Your task to perform on an android device: toggle sleep mode Image 0: 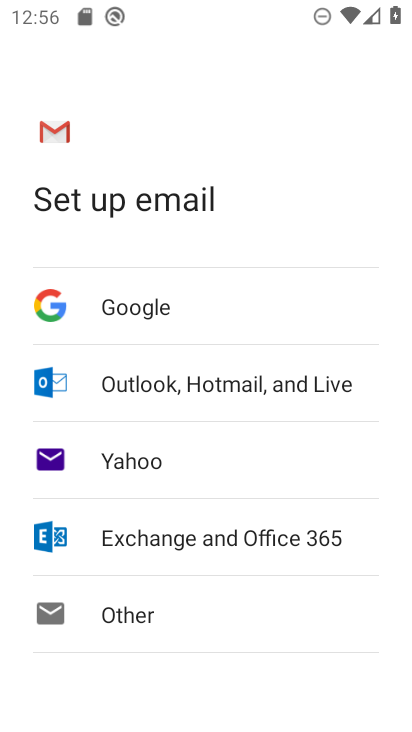
Step 0: press home button
Your task to perform on an android device: toggle sleep mode Image 1: 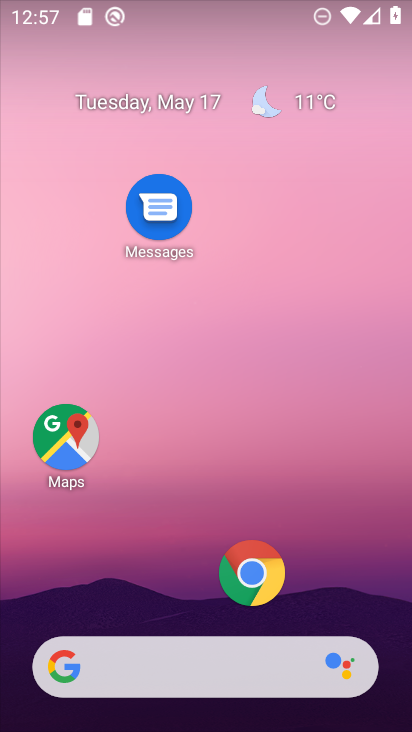
Step 1: drag from (198, 606) to (220, 59)
Your task to perform on an android device: toggle sleep mode Image 2: 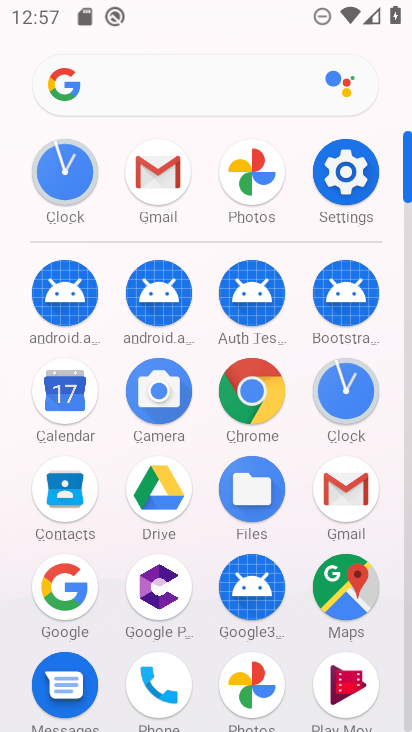
Step 2: click (345, 167)
Your task to perform on an android device: toggle sleep mode Image 3: 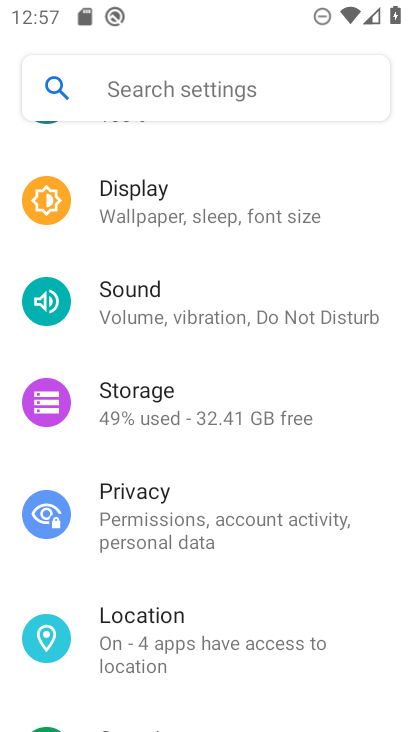
Step 3: click (184, 197)
Your task to perform on an android device: toggle sleep mode Image 4: 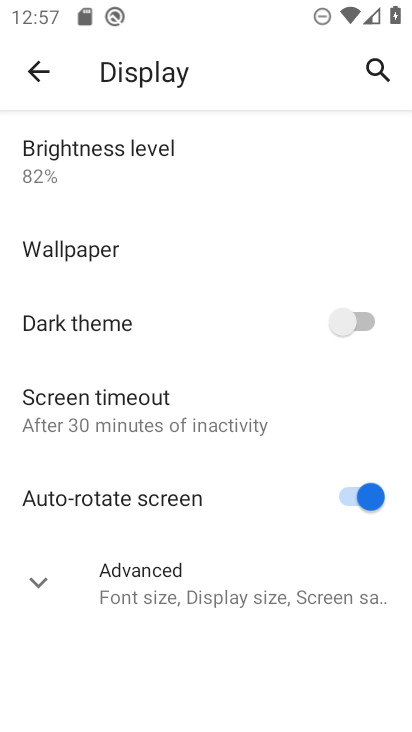
Step 4: click (32, 577)
Your task to perform on an android device: toggle sleep mode Image 5: 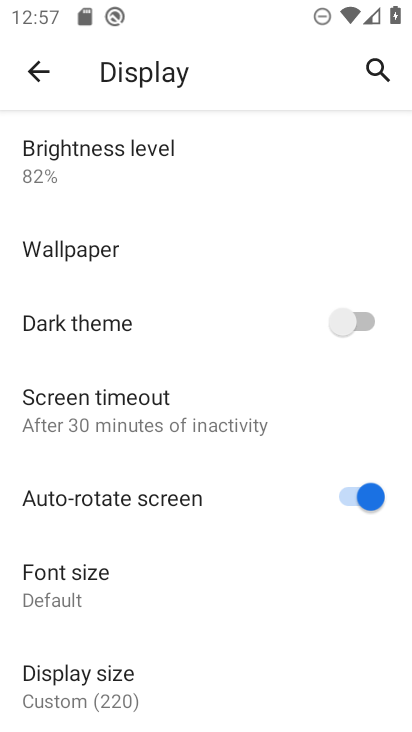
Step 5: task complete